Your task to perform on an android device: Open internet settings Image 0: 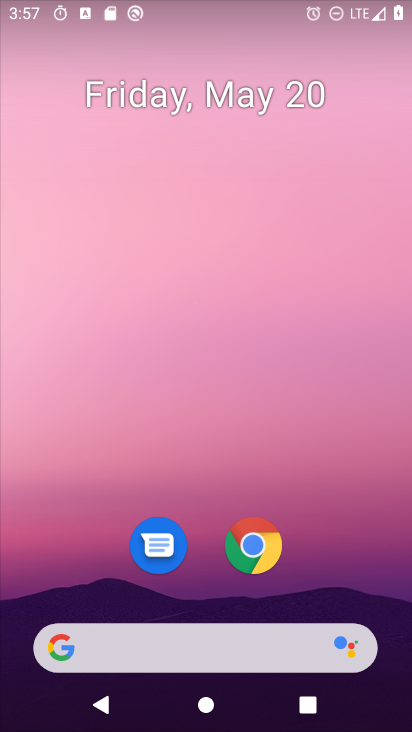
Step 0: drag from (269, 632) to (318, 13)
Your task to perform on an android device: Open internet settings Image 1: 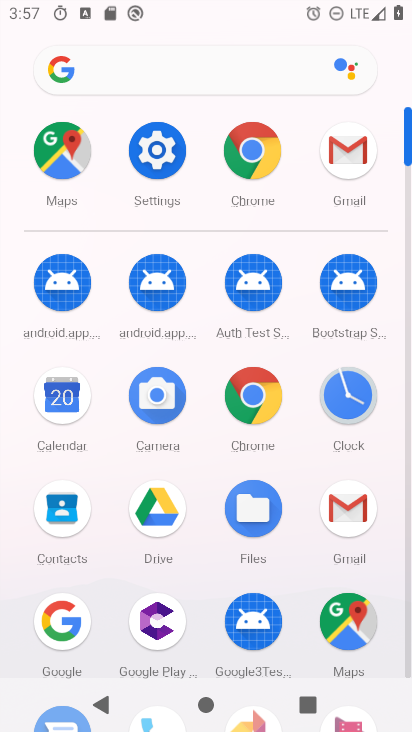
Step 1: click (165, 162)
Your task to perform on an android device: Open internet settings Image 2: 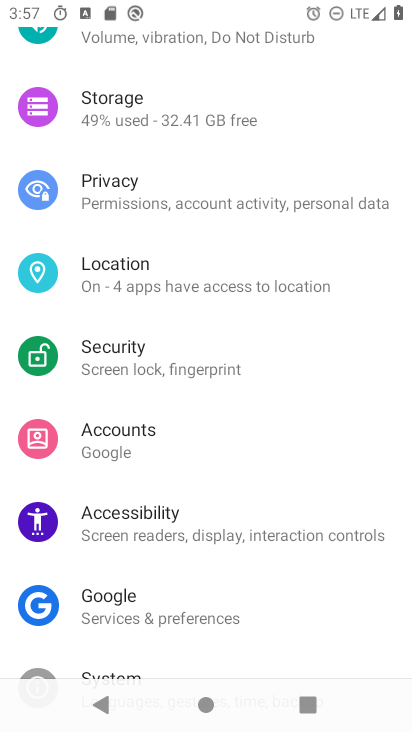
Step 2: drag from (183, 138) to (193, 719)
Your task to perform on an android device: Open internet settings Image 3: 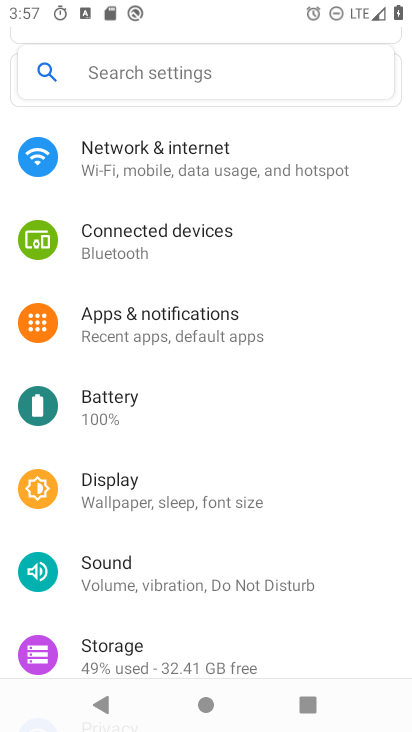
Step 3: click (175, 150)
Your task to perform on an android device: Open internet settings Image 4: 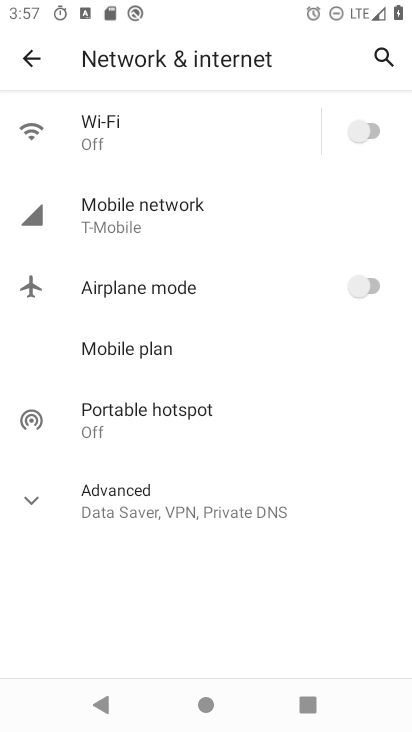
Step 4: task complete